Your task to perform on an android device: Add "rayovac triple a" to the cart on newegg Image 0: 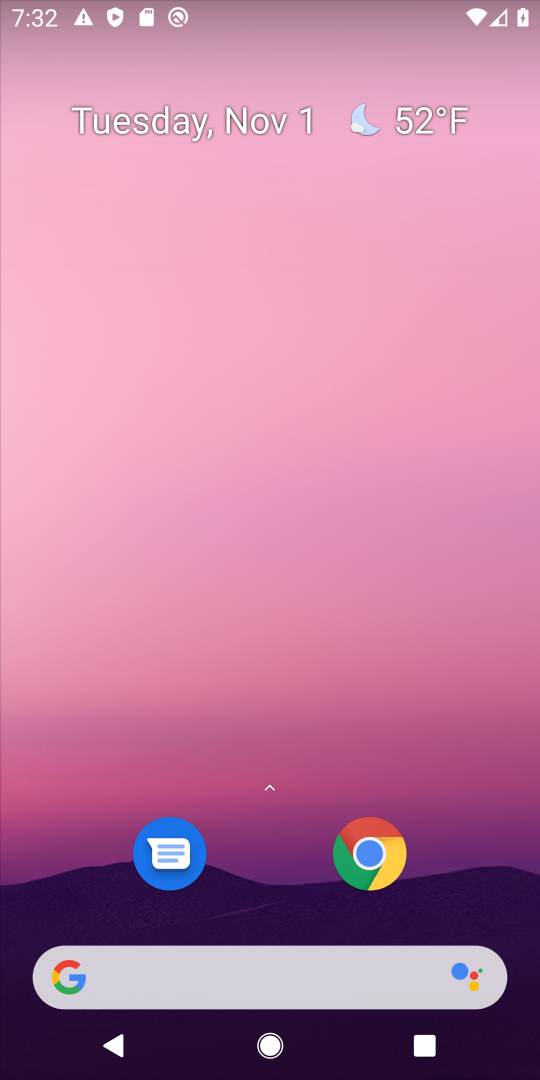
Step 0: click (349, 975)
Your task to perform on an android device: Add "rayovac triple a" to the cart on newegg Image 1: 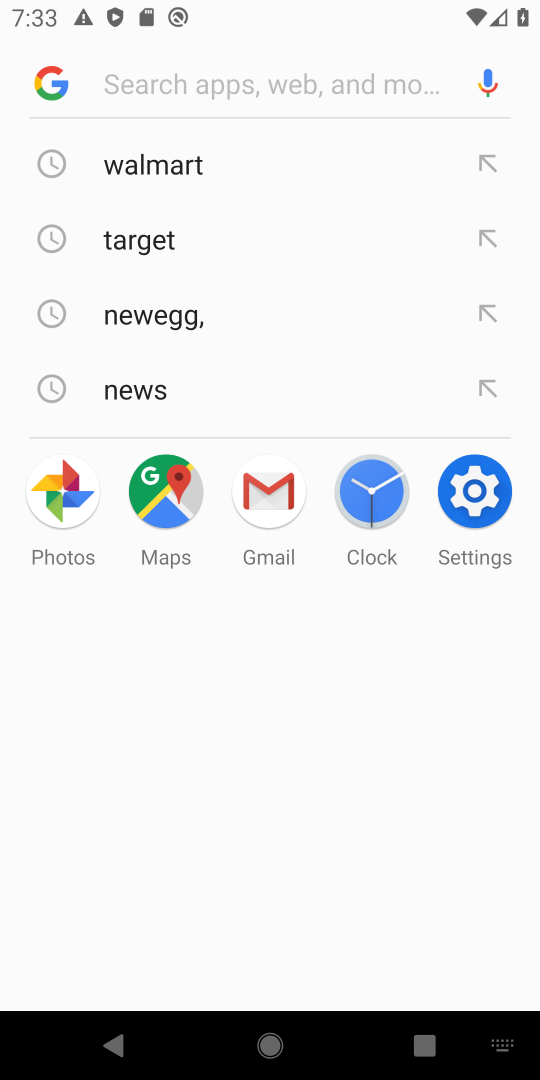
Step 1: click (194, 330)
Your task to perform on an android device: Add "rayovac triple a" to the cart on newegg Image 2: 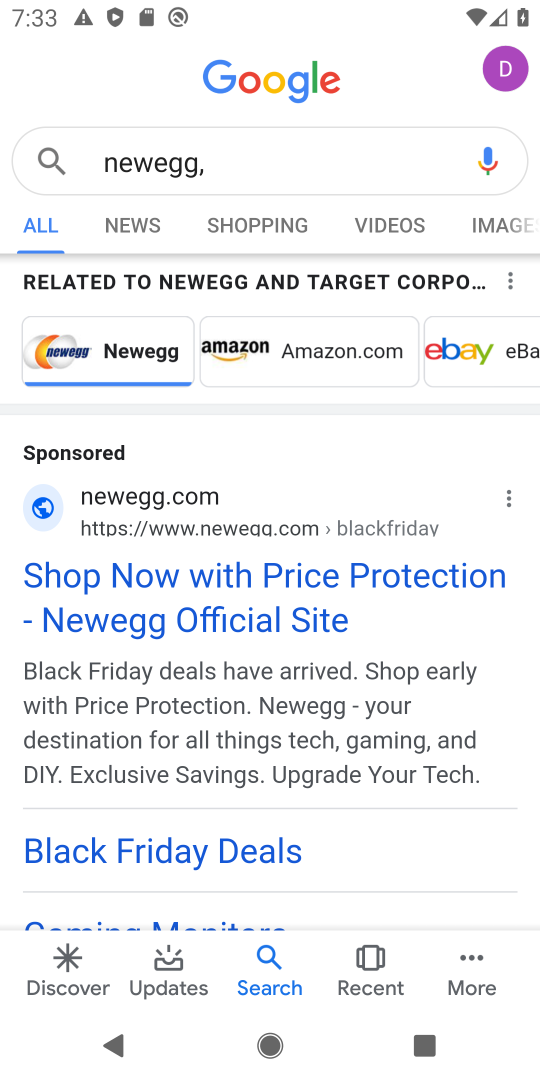
Step 2: click (284, 574)
Your task to perform on an android device: Add "rayovac triple a" to the cart on newegg Image 3: 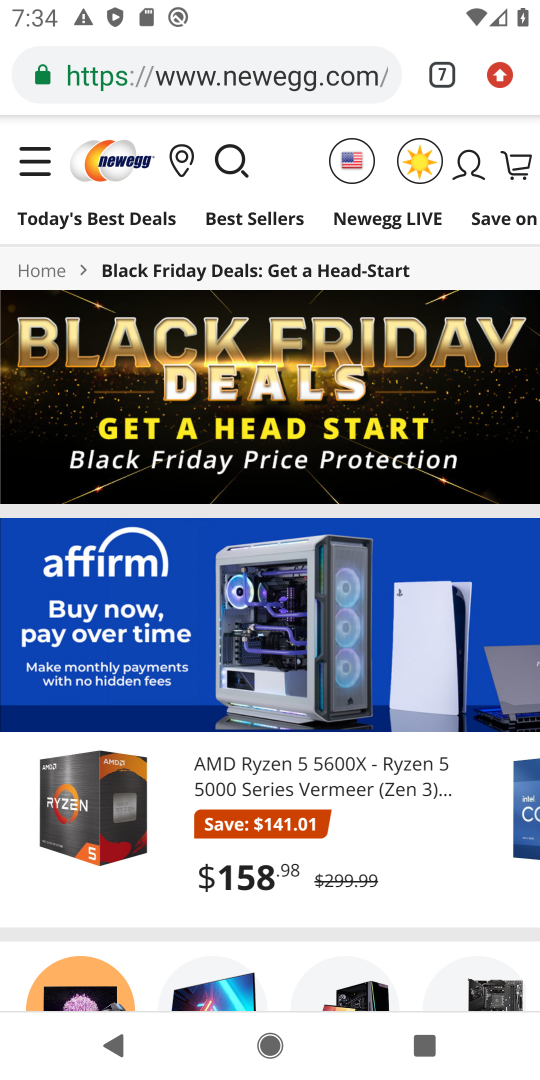
Step 3: click (231, 157)
Your task to perform on an android device: Add "rayovac triple a" to the cart on newegg Image 4: 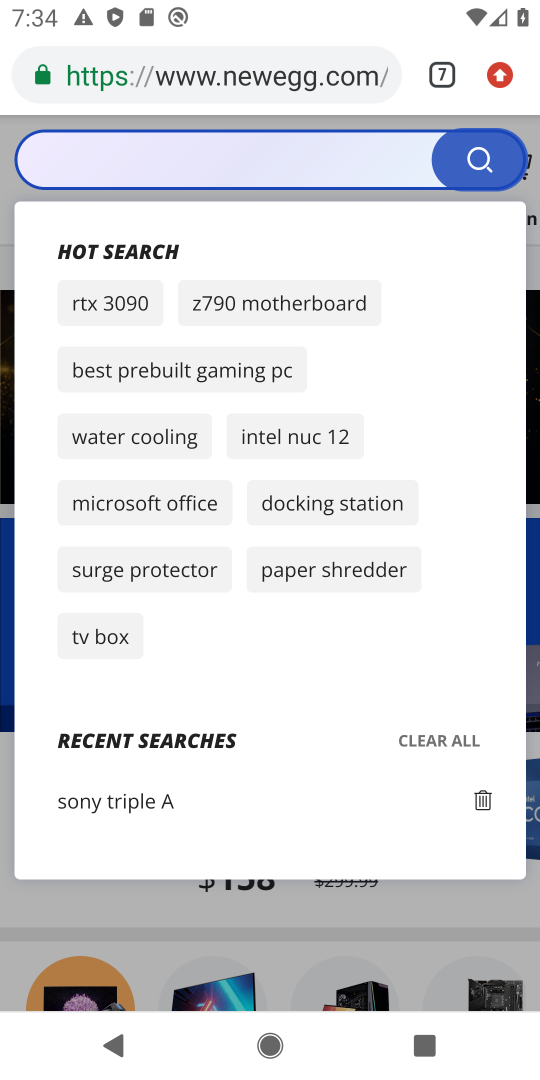
Step 4: click (203, 157)
Your task to perform on an android device: Add "rayovac triple a" to the cart on newegg Image 5: 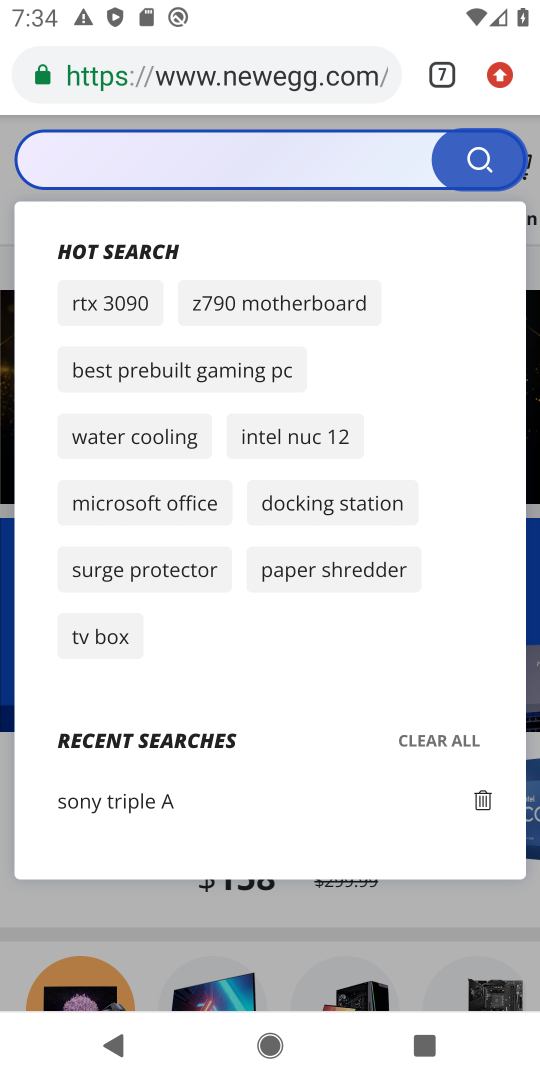
Step 5: click (203, 157)
Your task to perform on an android device: Add "rayovac triple a" to the cart on newegg Image 6: 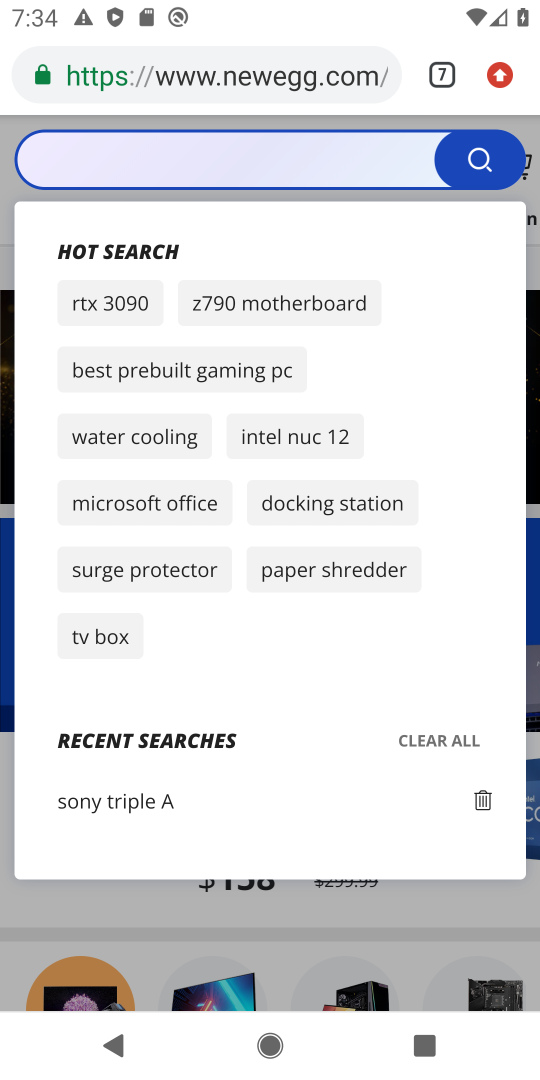
Step 6: click (203, 157)
Your task to perform on an android device: Add "rayovac triple a" to the cart on newegg Image 7: 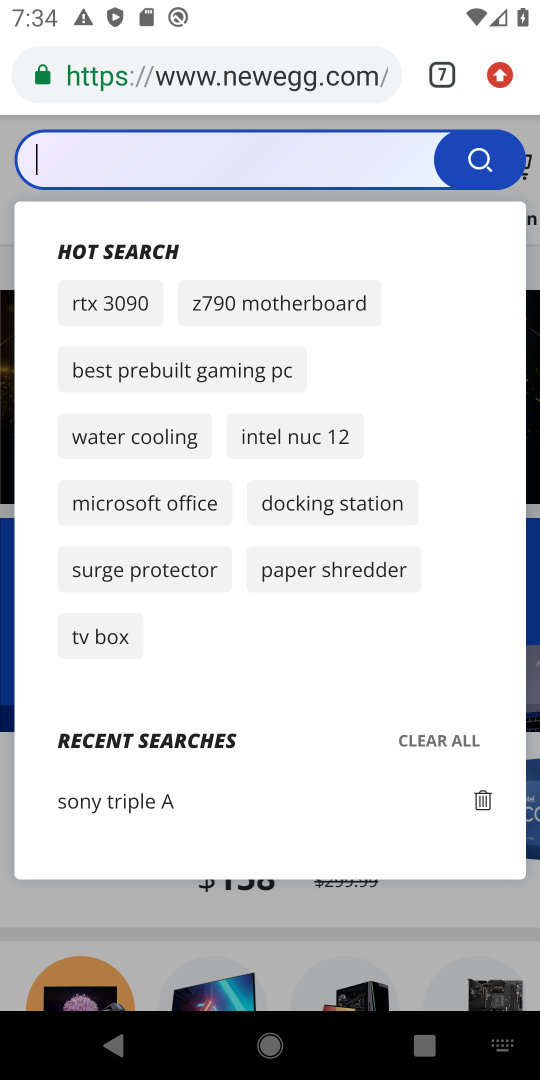
Step 7: type "rayovac triple a"
Your task to perform on an android device: Add "rayovac triple a" to the cart on newegg Image 8: 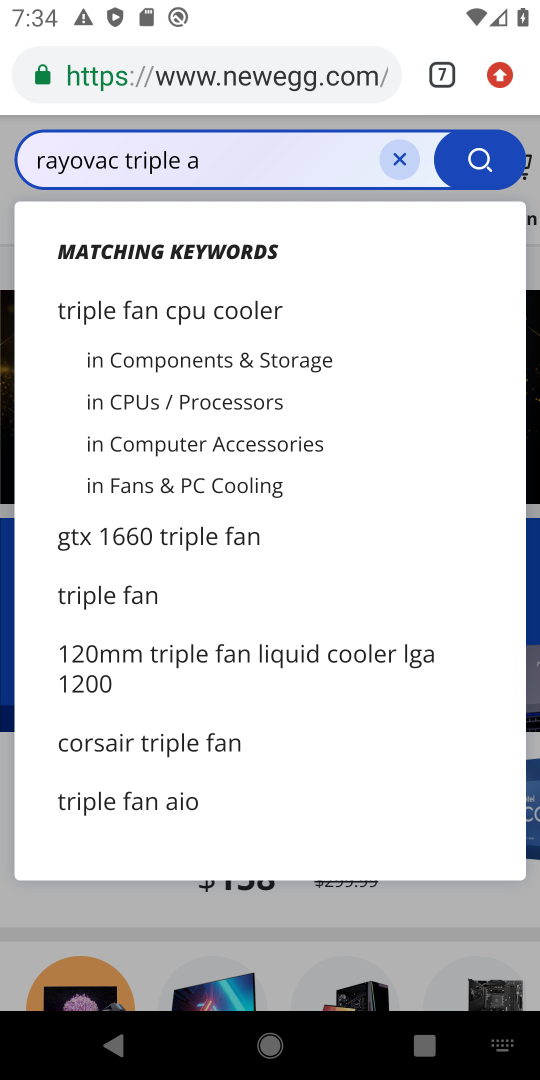
Step 8: click (503, 168)
Your task to perform on an android device: Add "rayovac triple a" to the cart on newegg Image 9: 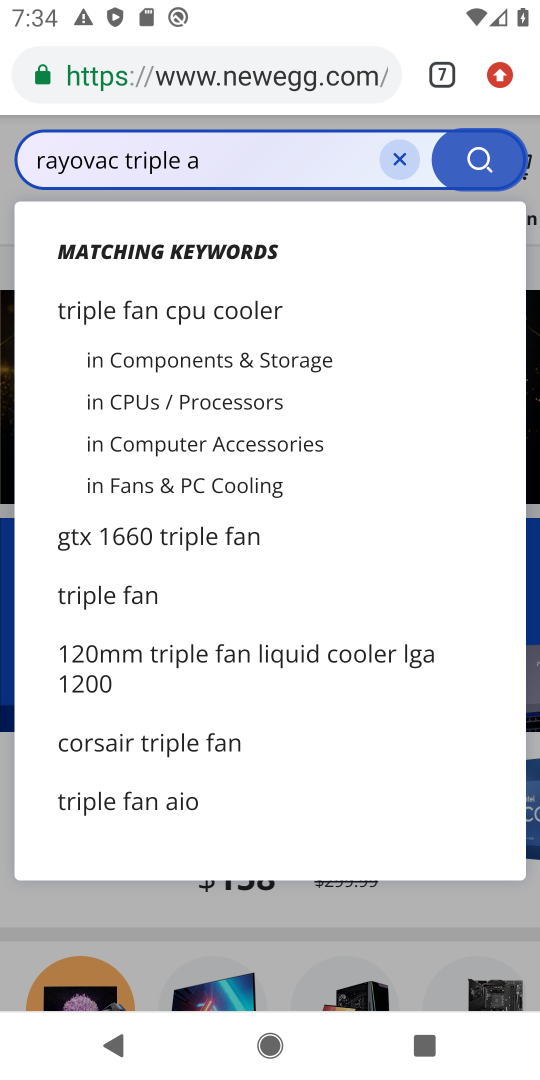
Step 9: click (466, 154)
Your task to perform on an android device: Add "rayovac triple a" to the cart on newegg Image 10: 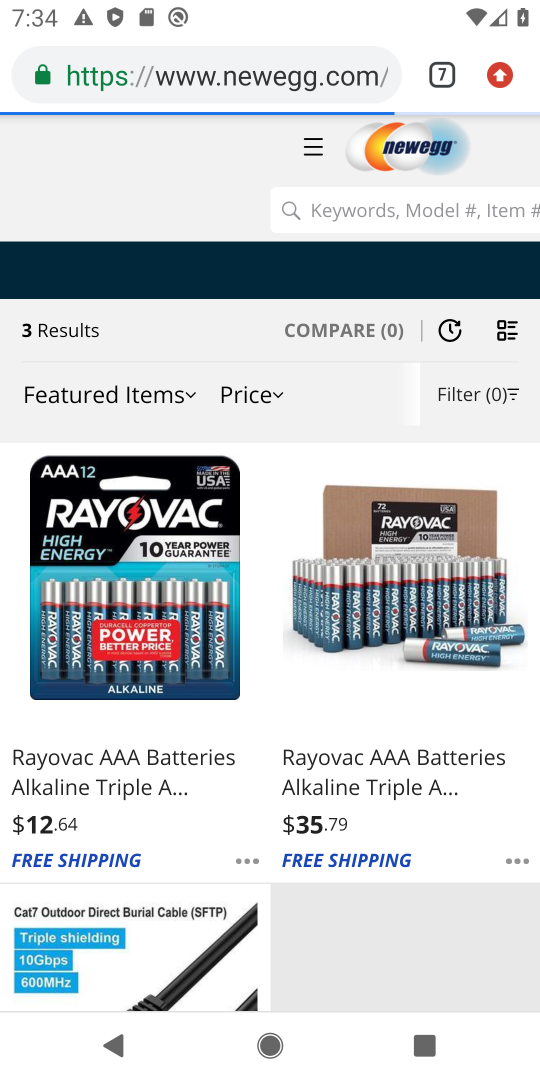
Step 10: click (152, 593)
Your task to perform on an android device: Add "rayovac triple a" to the cart on newegg Image 11: 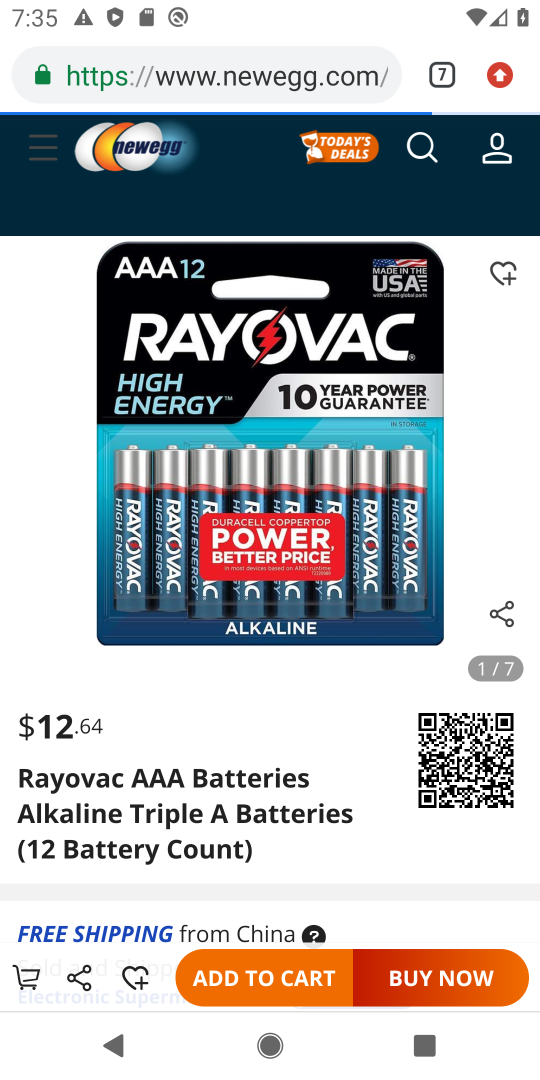
Step 11: click (306, 985)
Your task to perform on an android device: Add "rayovac triple a" to the cart on newegg Image 12: 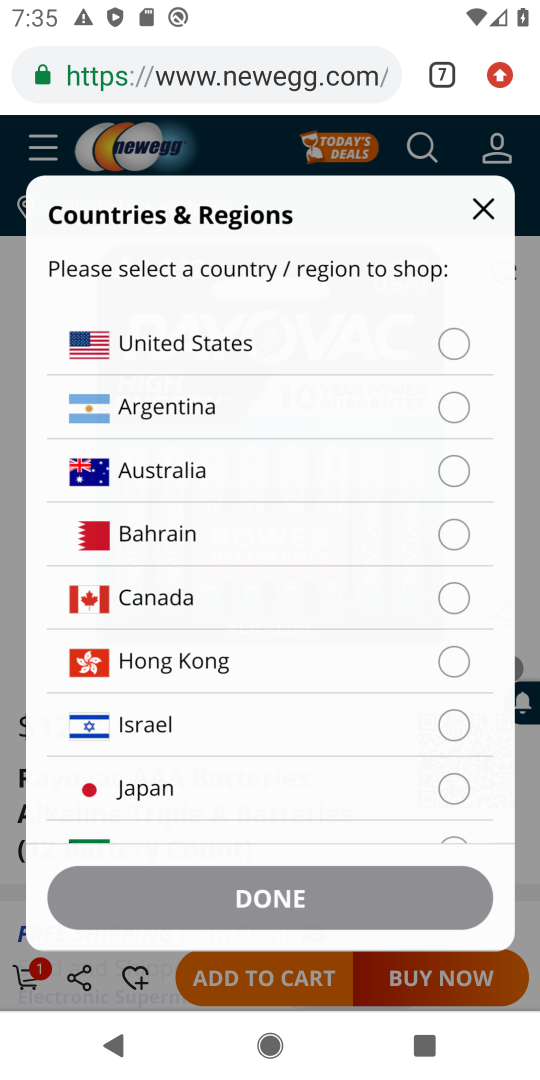
Step 12: click (282, 356)
Your task to perform on an android device: Add "rayovac triple a" to the cart on newegg Image 13: 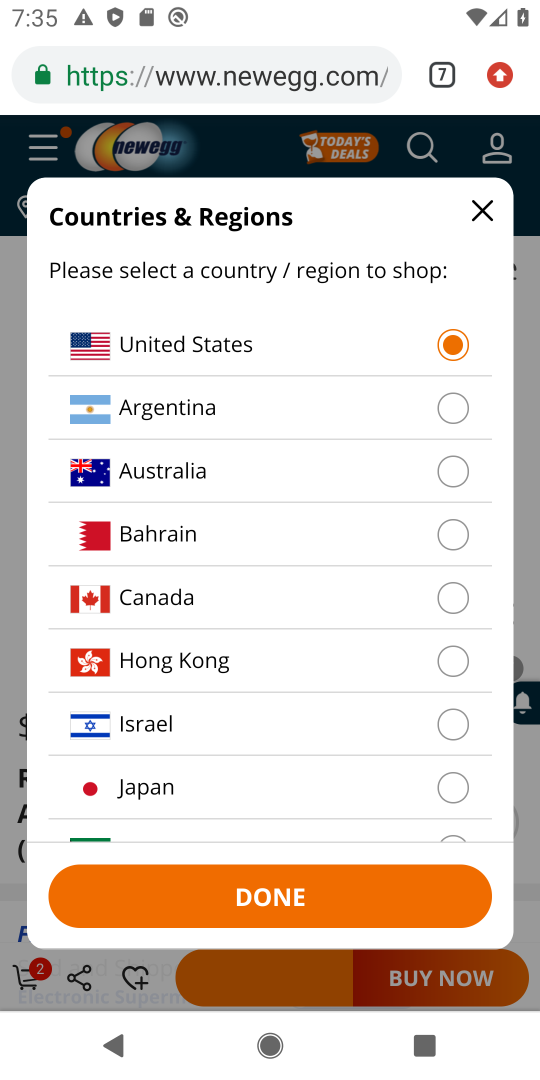
Step 13: click (310, 919)
Your task to perform on an android device: Add "rayovac triple a" to the cart on newegg Image 14: 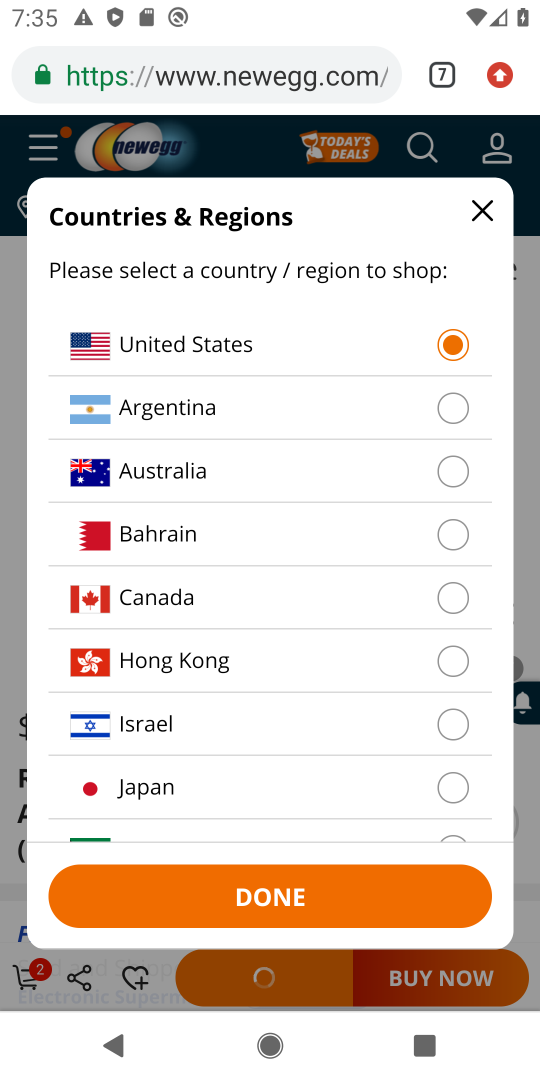
Step 14: click (310, 919)
Your task to perform on an android device: Add "rayovac triple a" to the cart on newegg Image 15: 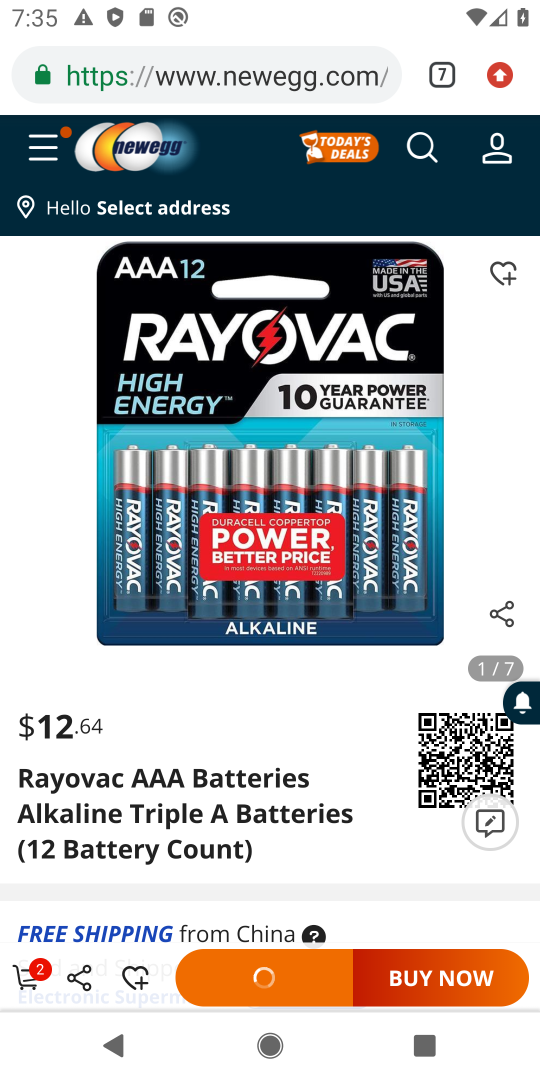
Step 15: click (278, 906)
Your task to perform on an android device: Add "rayovac triple a" to the cart on newegg Image 16: 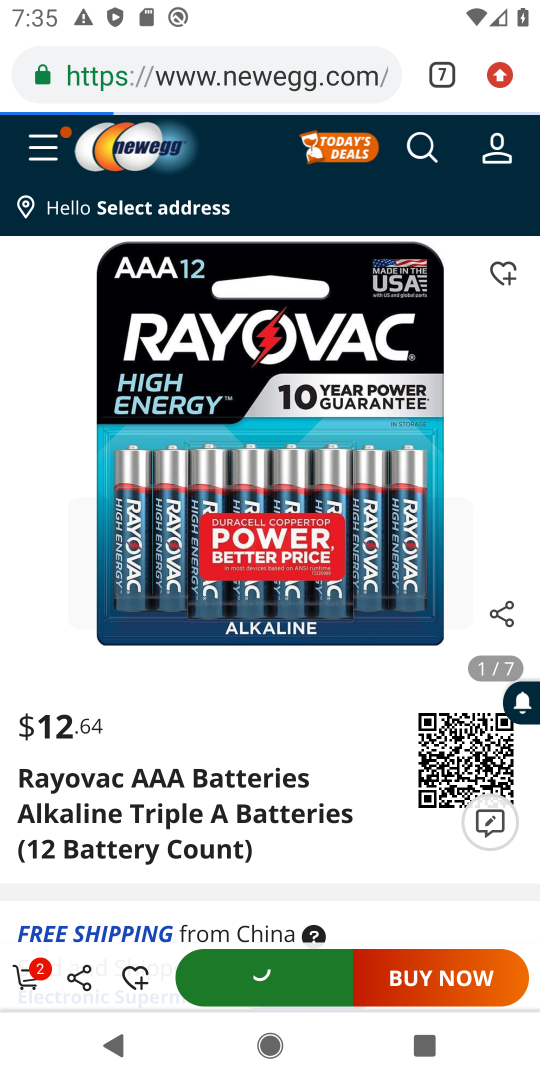
Step 16: task complete